Your task to perform on an android device: turn on sleep mode Image 0: 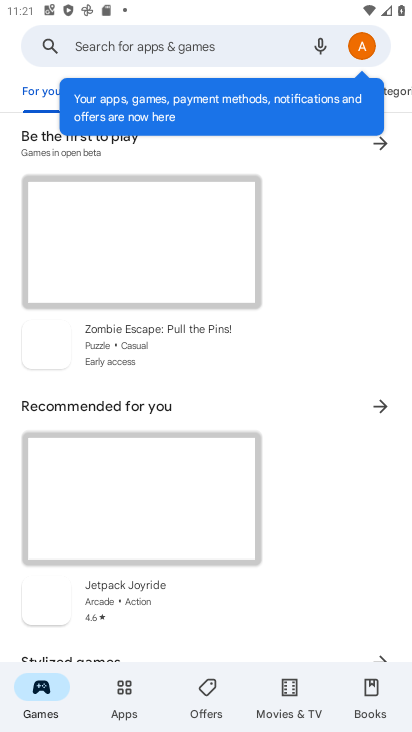
Step 0: press home button
Your task to perform on an android device: turn on sleep mode Image 1: 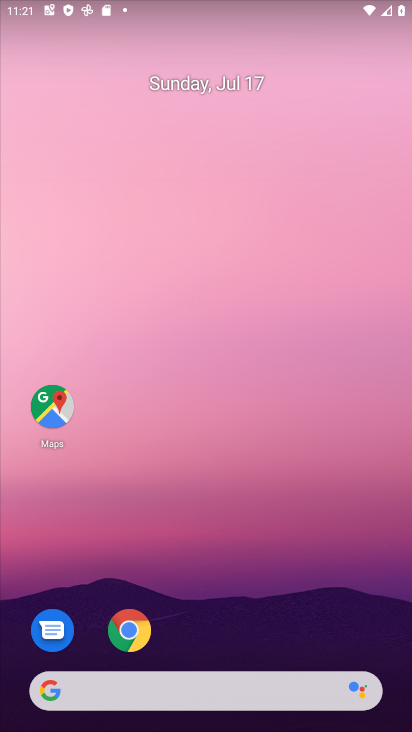
Step 1: drag from (267, 599) to (285, 82)
Your task to perform on an android device: turn on sleep mode Image 2: 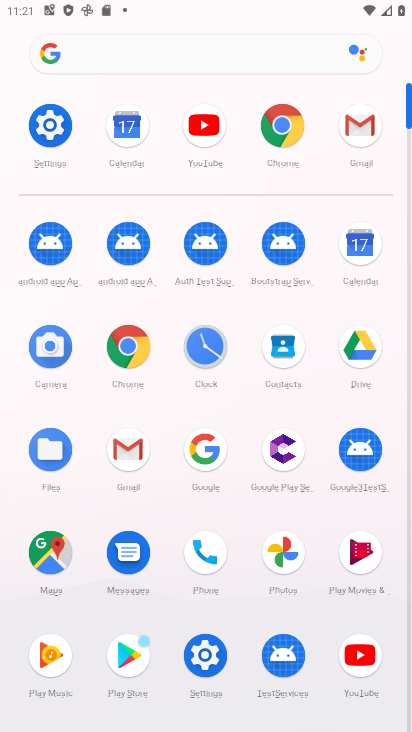
Step 2: click (29, 146)
Your task to perform on an android device: turn on sleep mode Image 3: 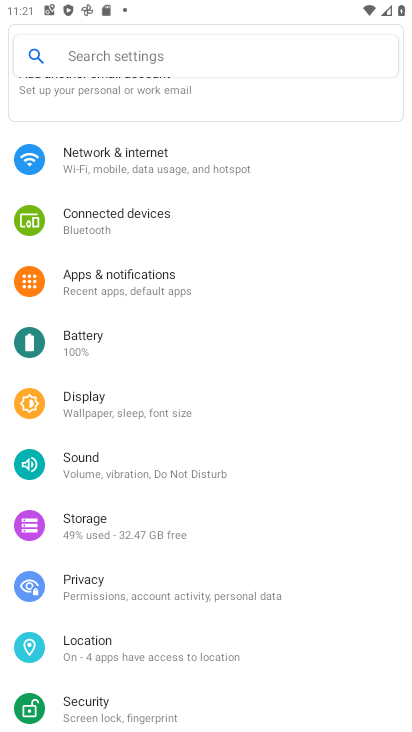
Step 3: click (230, 421)
Your task to perform on an android device: turn on sleep mode Image 4: 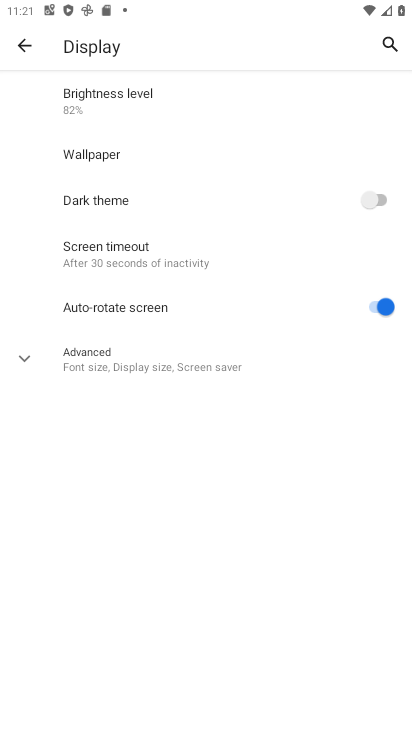
Step 4: click (156, 267)
Your task to perform on an android device: turn on sleep mode Image 5: 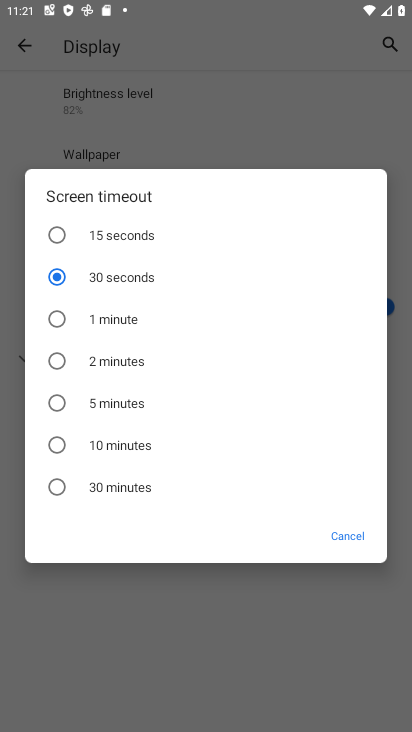
Step 5: click (128, 225)
Your task to perform on an android device: turn on sleep mode Image 6: 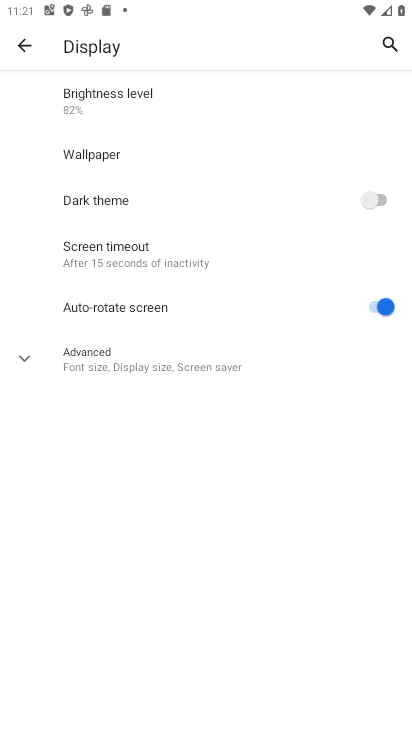
Step 6: task complete